Your task to perform on an android device: set an alarm Image 0: 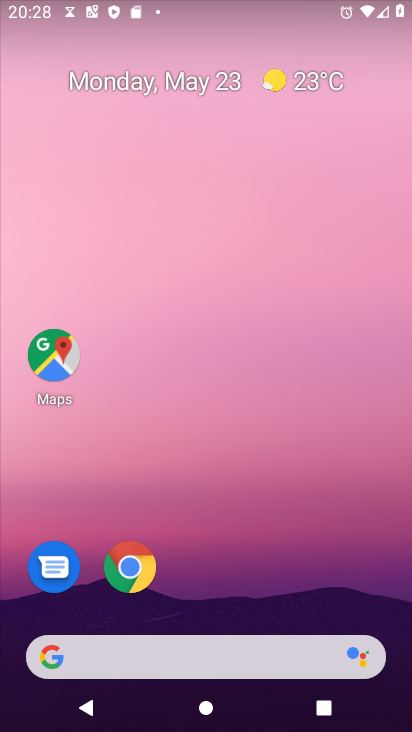
Step 0: drag from (217, 615) to (272, 244)
Your task to perform on an android device: set an alarm Image 1: 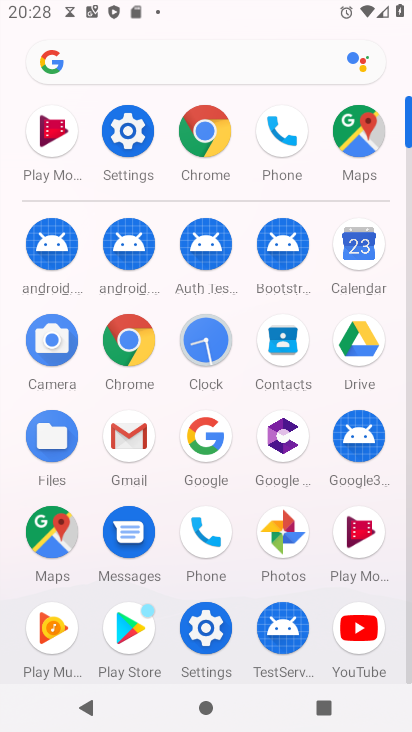
Step 1: click (210, 340)
Your task to perform on an android device: set an alarm Image 2: 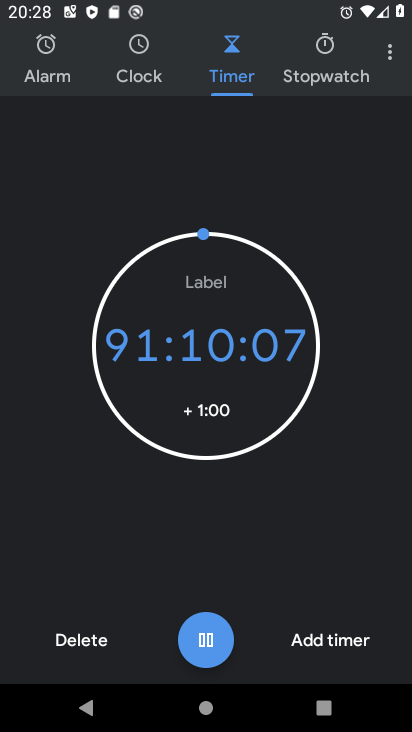
Step 2: click (45, 45)
Your task to perform on an android device: set an alarm Image 3: 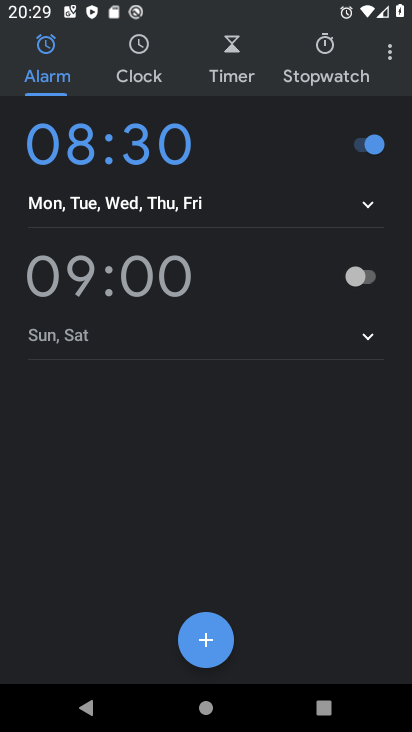
Step 3: task complete